Your task to perform on an android device: turn on bluetooth scan Image 0: 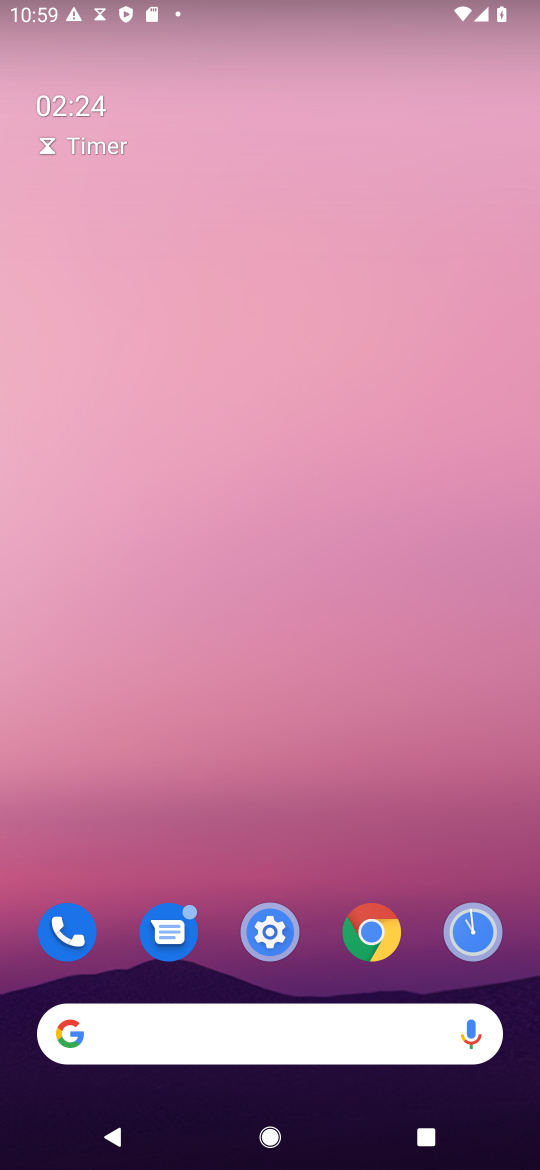
Step 0: click (266, 931)
Your task to perform on an android device: turn on bluetooth scan Image 1: 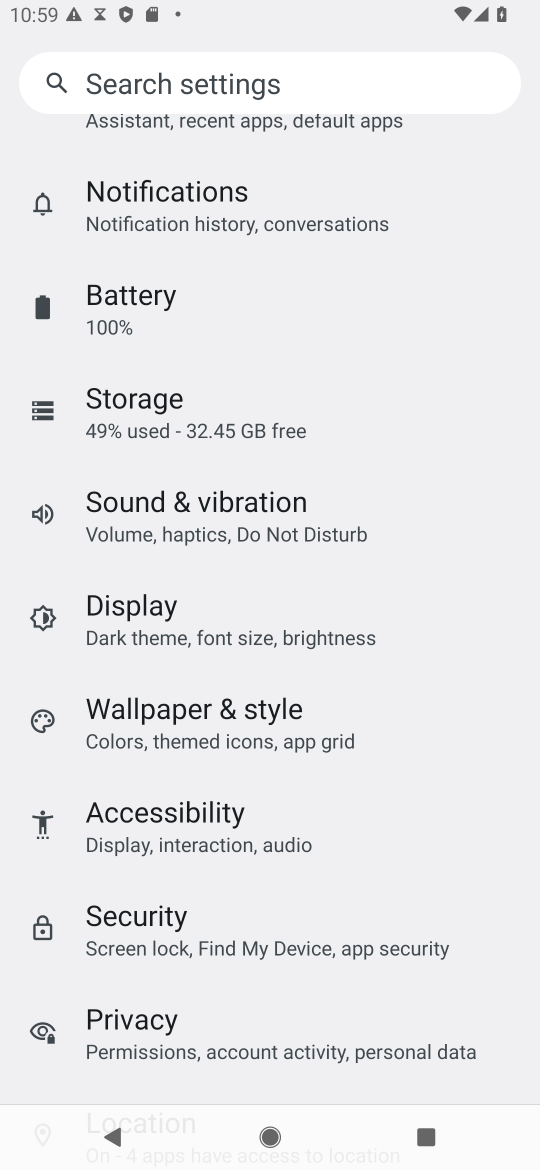
Step 1: drag from (211, 797) to (256, 266)
Your task to perform on an android device: turn on bluetooth scan Image 2: 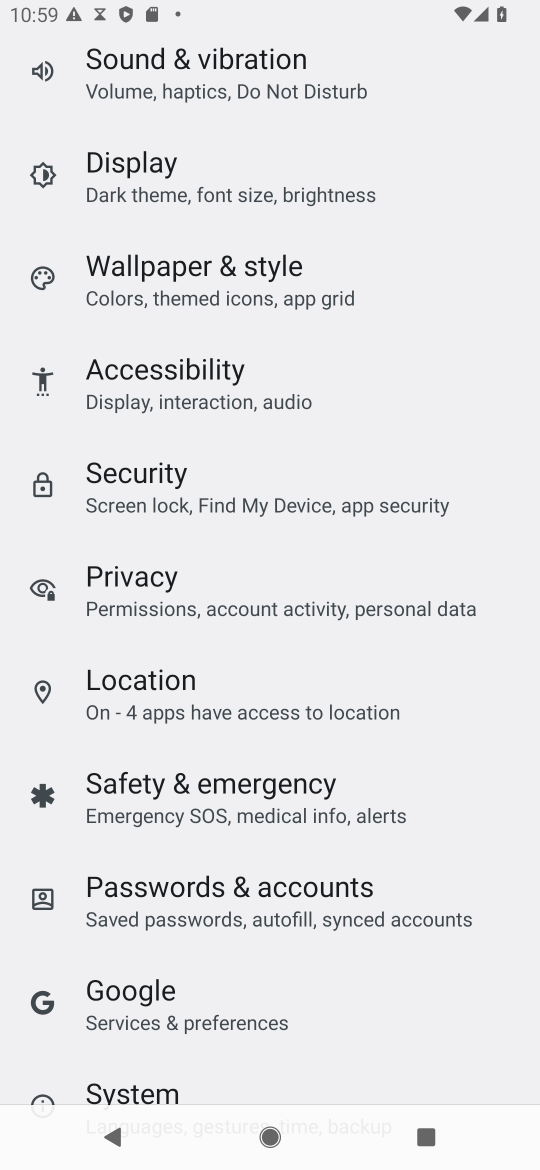
Step 2: click (194, 692)
Your task to perform on an android device: turn on bluetooth scan Image 3: 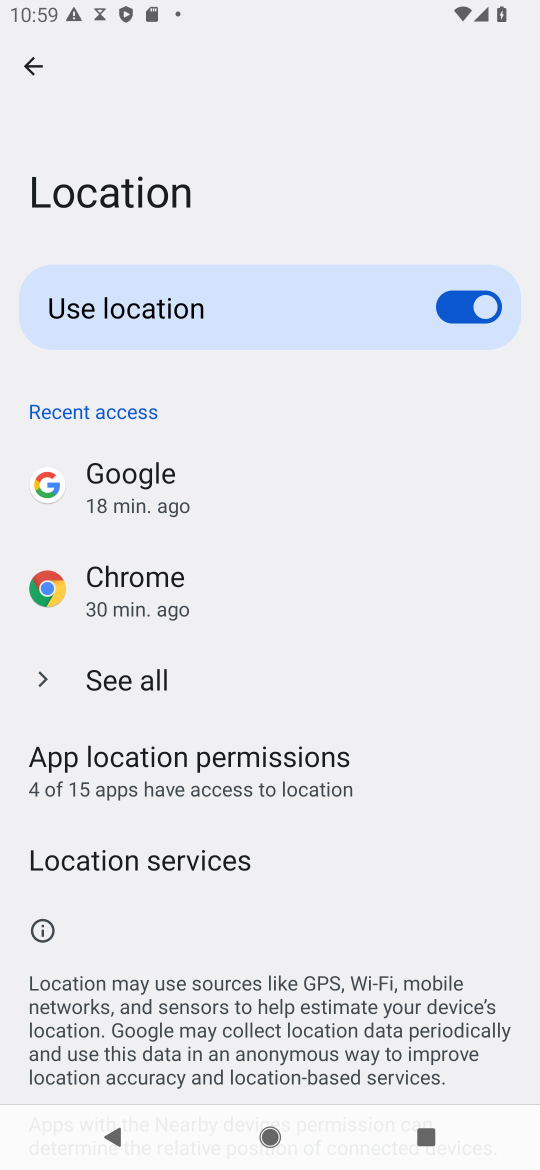
Step 3: click (149, 868)
Your task to perform on an android device: turn on bluetooth scan Image 4: 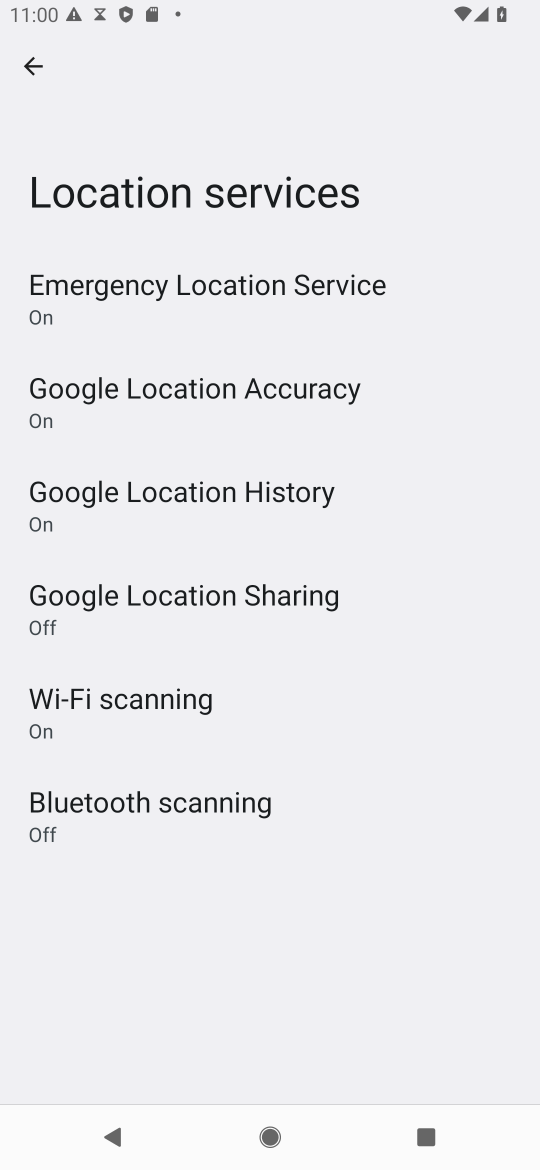
Step 4: click (229, 799)
Your task to perform on an android device: turn on bluetooth scan Image 5: 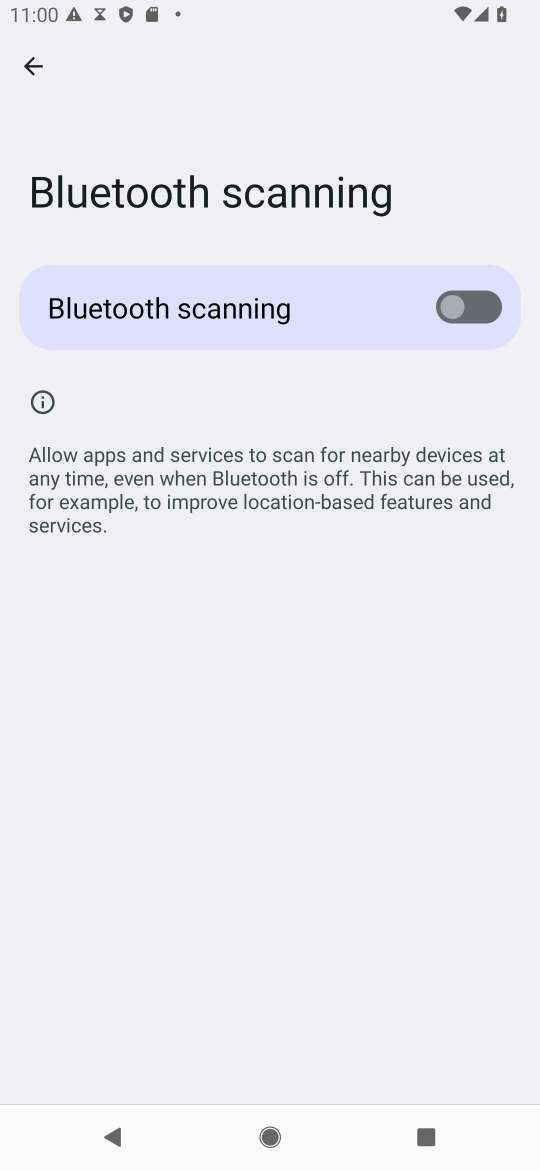
Step 5: click (450, 306)
Your task to perform on an android device: turn on bluetooth scan Image 6: 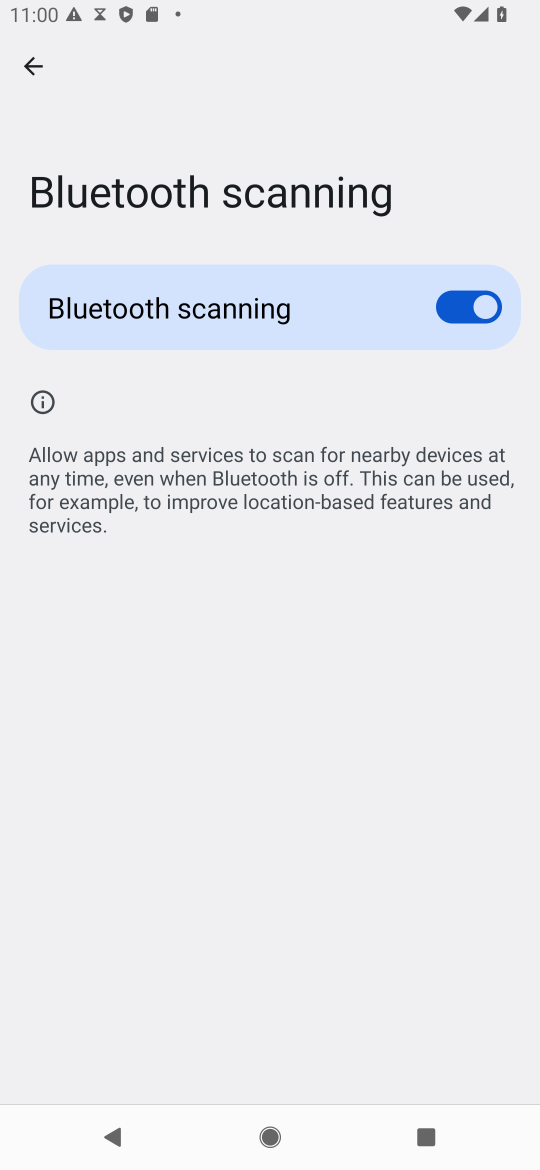
Step 6: task complete